Your task to perform on an android device: make emails show in primary in the gmail app Image 0: 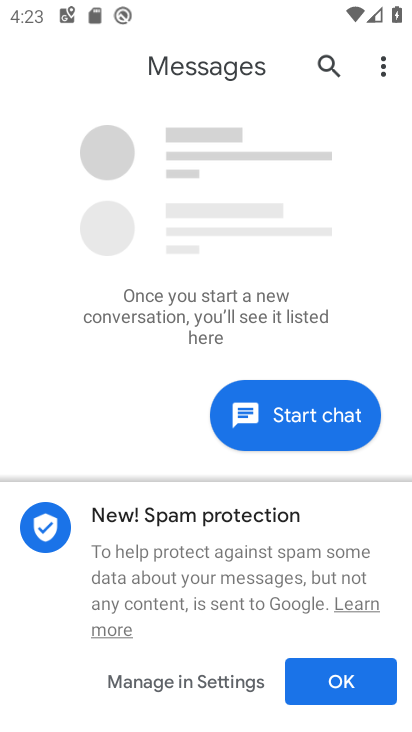
Step 0: press home button
Your task to perform on an android device: make emails show in primary in the gmail app Image 1: 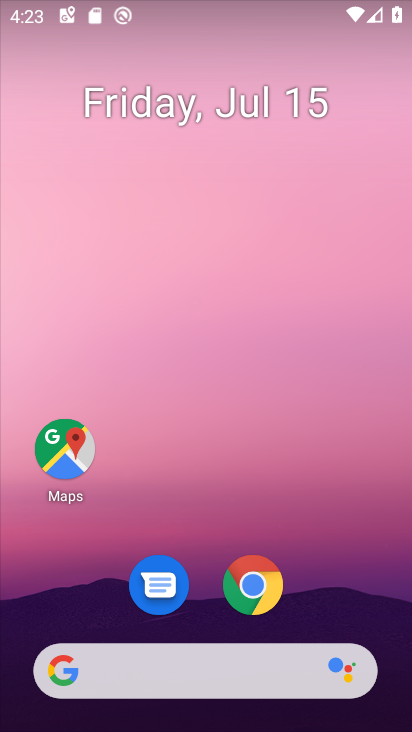
Step 1: drag from (330, 552) to (296, 34)
Your task to perform on an android device: make emails show in primary in the gmail app Image 2: 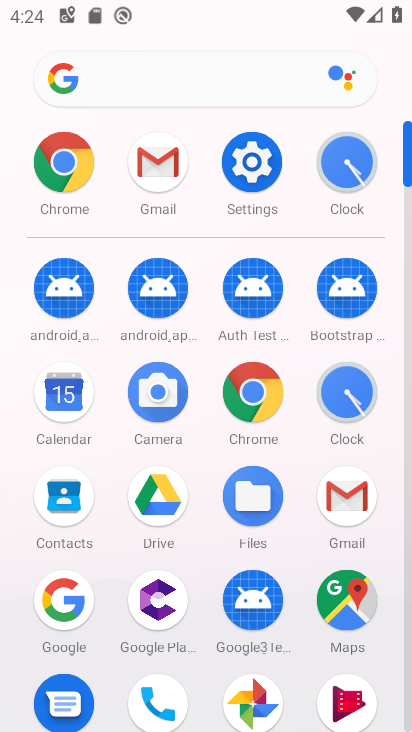
Step 2: click (169, 167)
Your task to perform on an android device: make emails show in primary in the gmail app Image 3: 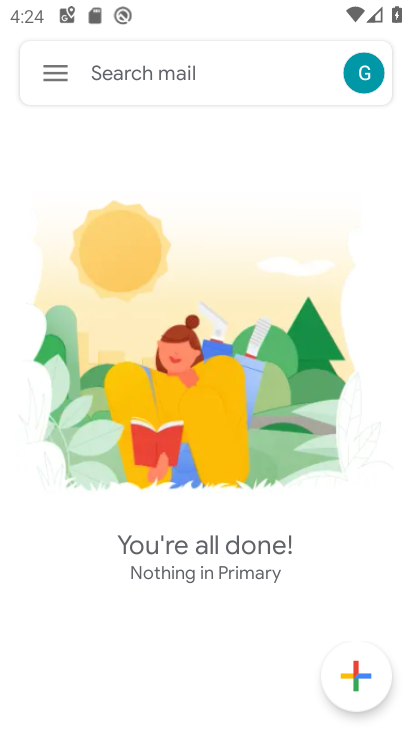
Step 3: click (60, 70)
Your task to perform on an android device: make emails show in primary in the gmail app Image 4: 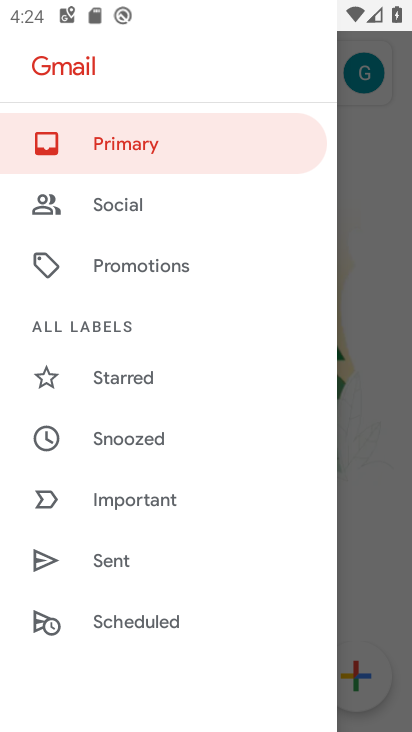
Step 4: drag from (182, 530) to (189, 168)
Your task to perform on an android device: make emails show in primary in the gmail app Image 5: 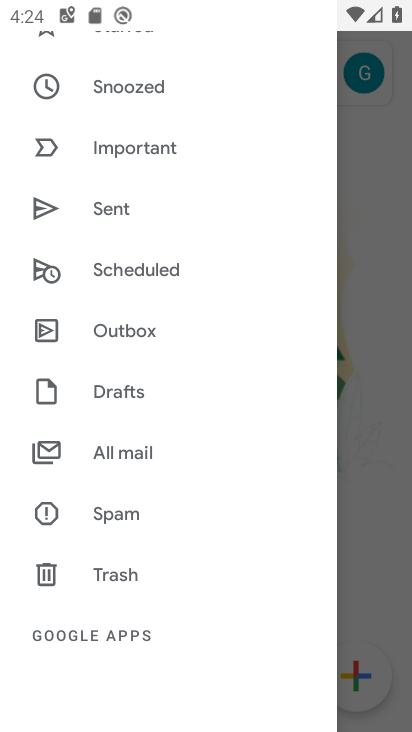
Step 5: drag from (179, 443) to (181, 133)
Your task to perform on an android device: make emails show in primary in the gmail app Image 6: 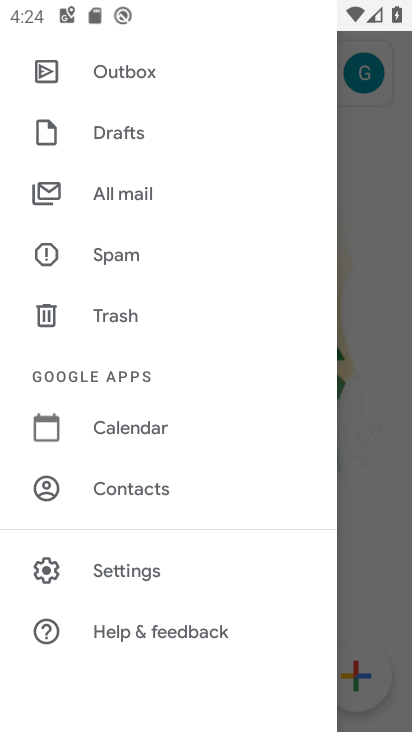
Step 6: click (125, 564)
Your task to perform on an android device: make emails show in primary in the gmail app Image 7: 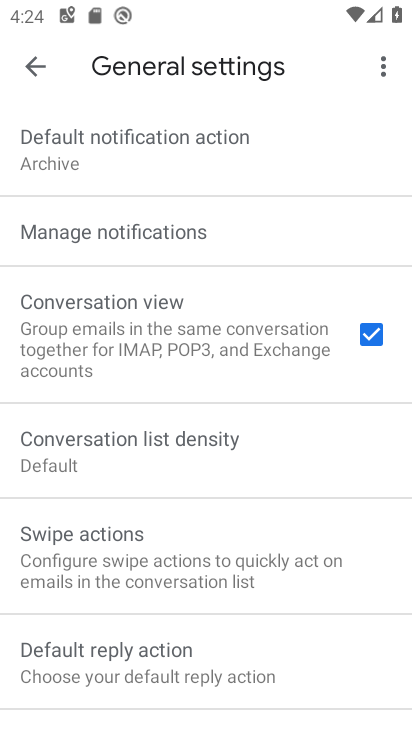
Step 7: click (36, 63)
Your task to perform on an android device: make emails show in primary in the gmail app Image 8: 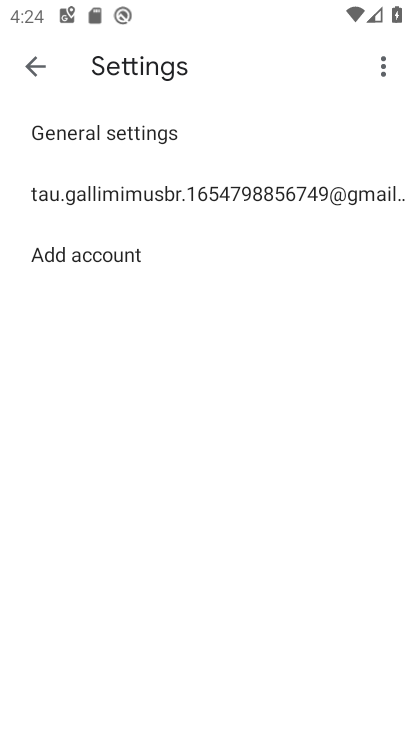
Step 8: click (105, 193)
Your task to perform on an android device: make emails show in primary in the gmail app Image 9: 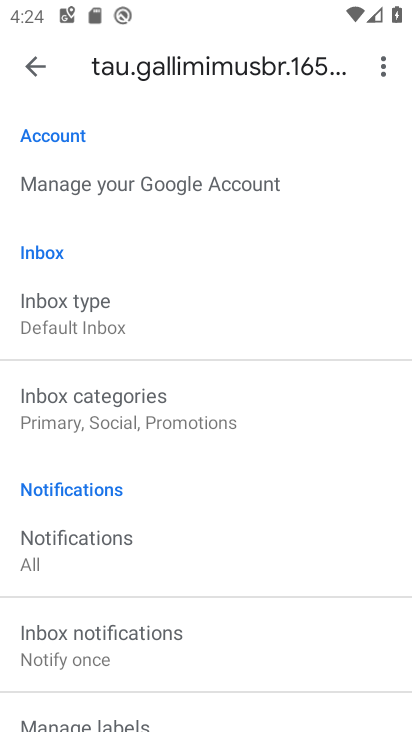
Step 9: click (112, 402)
Your task to perform on an android device: make emails show in primary in the gmail app Image 10: 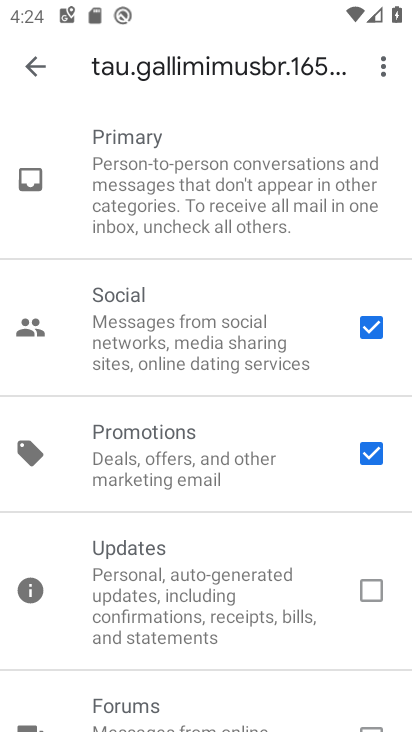
Step 10: click (364, 328)
Your task to perform on an android device: make emails show in primary in the gmail app Image 11: 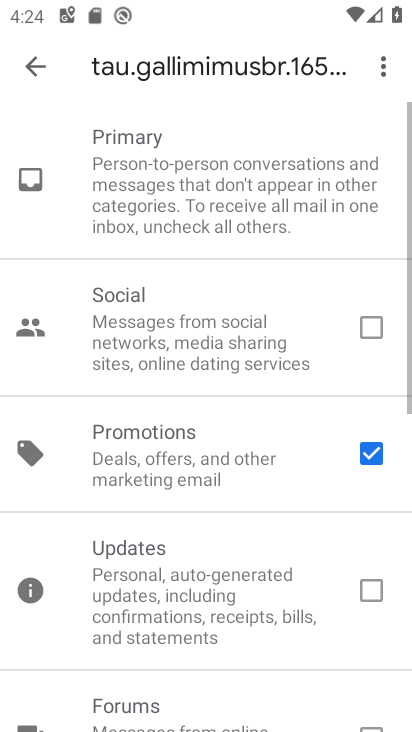
Step 11: click (380, 454)
Your task to perform on an android device: make emails show in primary in the gmail app Image 12: 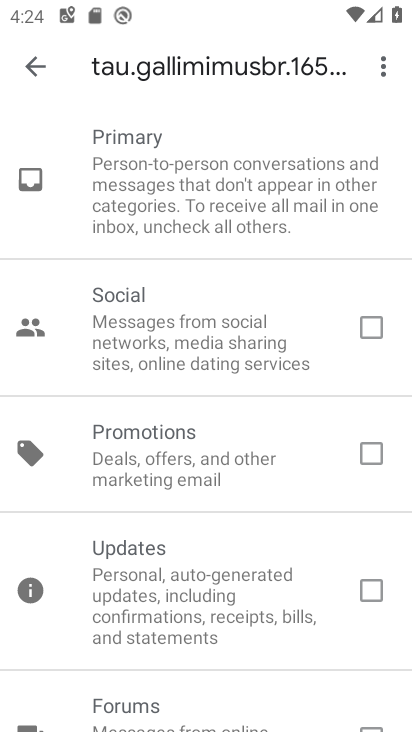
Step 12: click (39, 56)
Your task to perform on an android device: make emails show in primary in the gmail app Image 13: 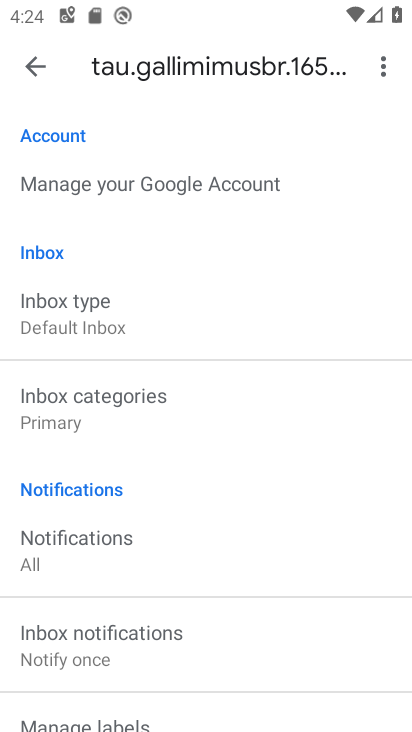
Step 13: task complete